Your task to perform on an android device: find which apps use the phone's location Image 0: 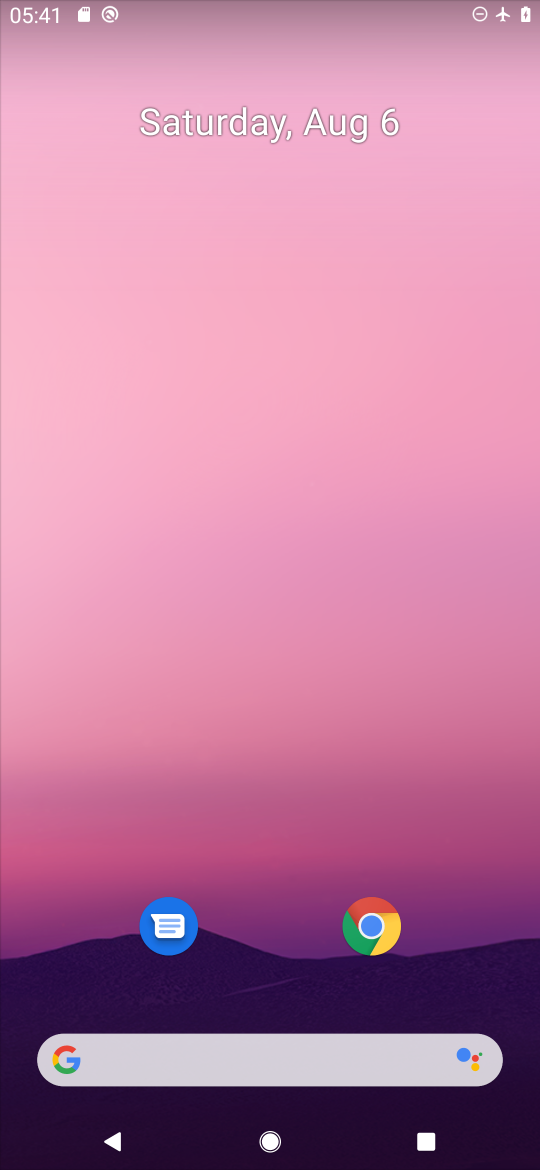
Step 0: drag from (258, 953) to (236, 289)
Your task to perform on an android device: find which apps use the phone's location Image 1: 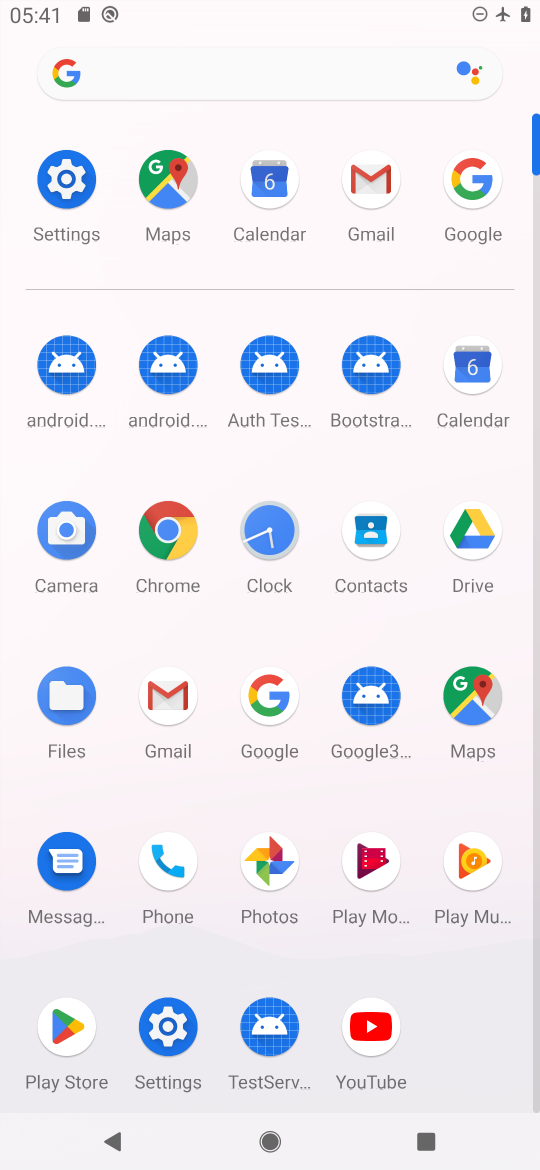
Step 1: click (65, 174)
Your task to perform on an android device: find which apps use the phone's location Image 2: 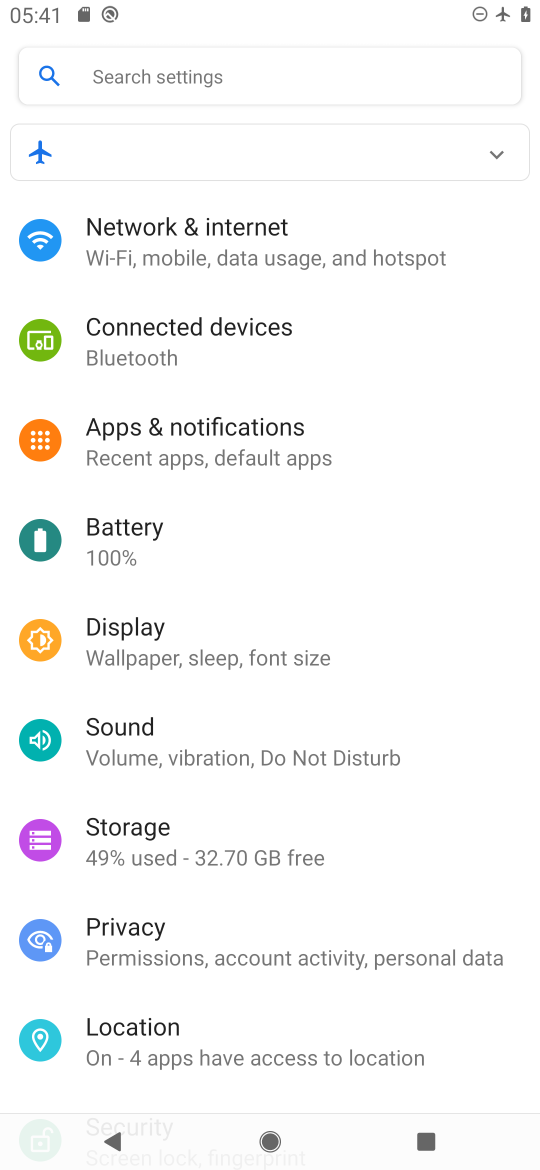
Step 2: click (170, 1009)
Your task to perform on an android device: find which apps use the phone's location Image 3: 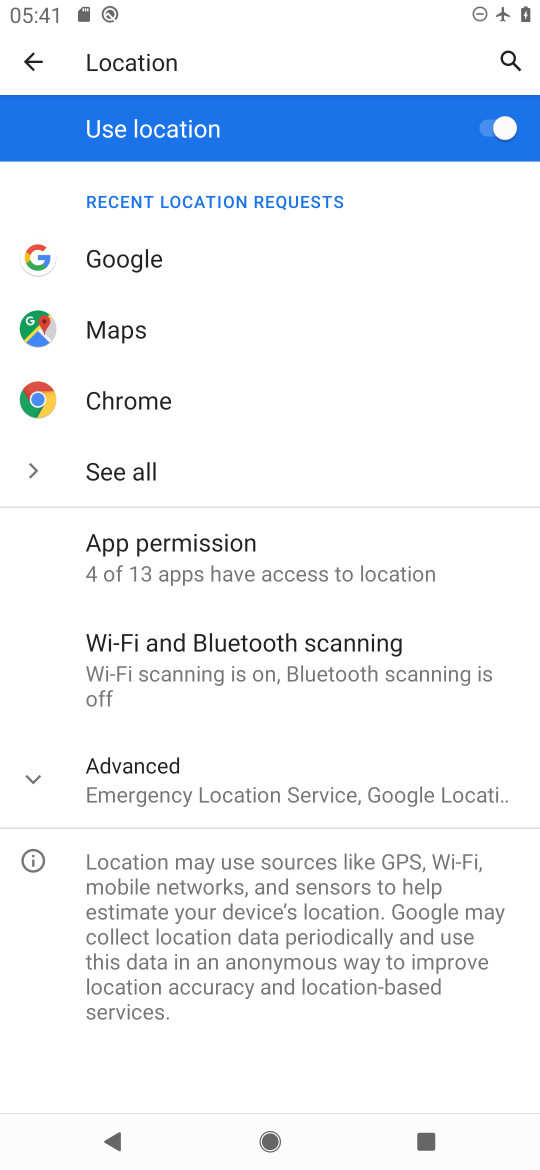
Step 3: click (207, 561)
Your task to perform on an android device: find which apps use the phone's location Image 4: 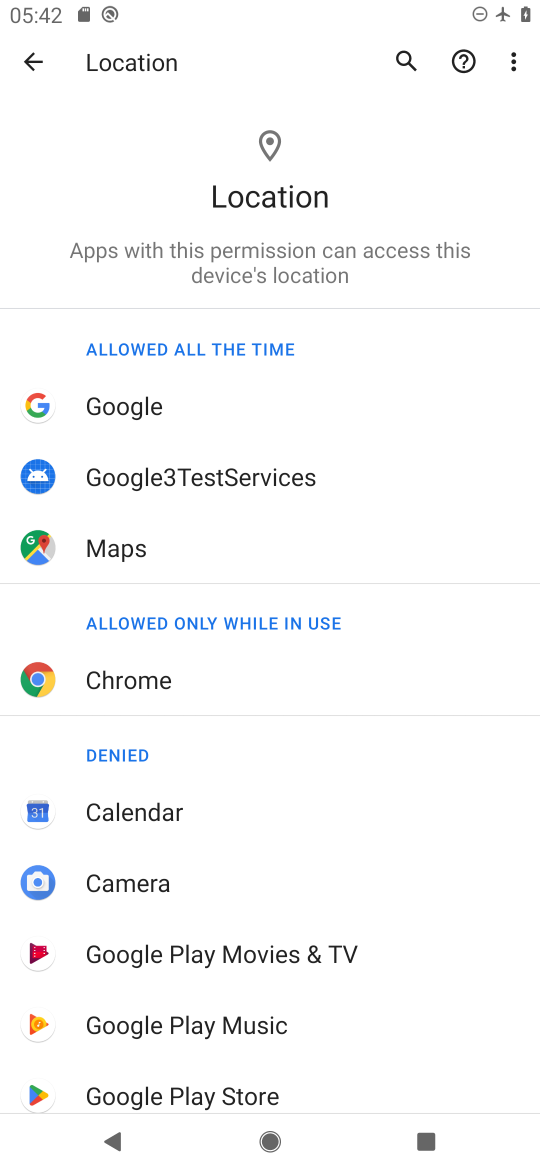
Step 4: task complete